Your task to perform on an android device: toggle show notifications on the lock screen Image 0: 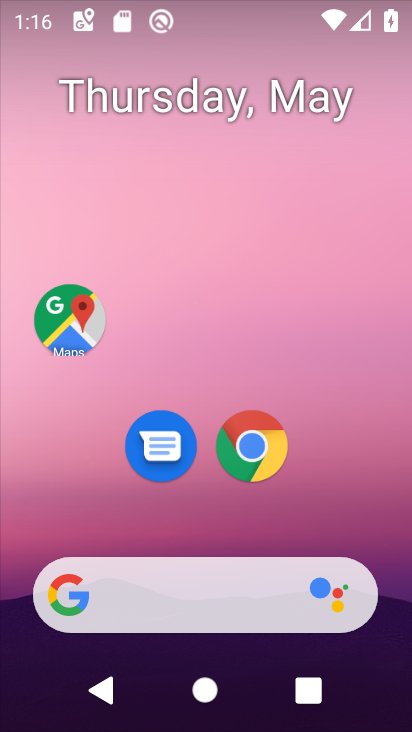
Step 0: drag from (201, 497) to (230, 126)
Your task to perform on an android device: toggle show notifications on the lock screen Image 1: 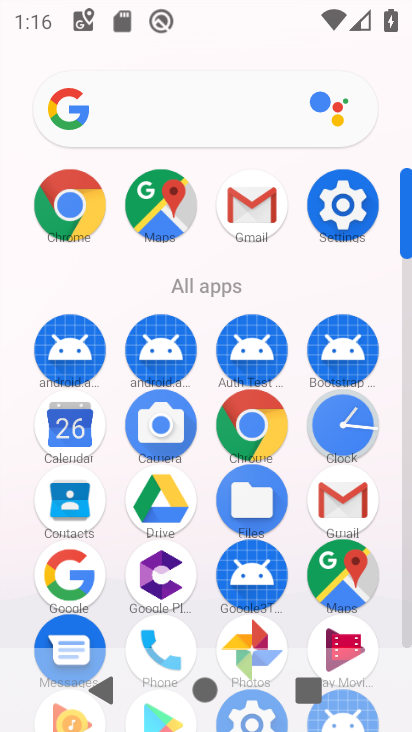
Step 1: click (350, 220)
Your task to perform on an android device: toggle show notifications on the lock screen Image 2: 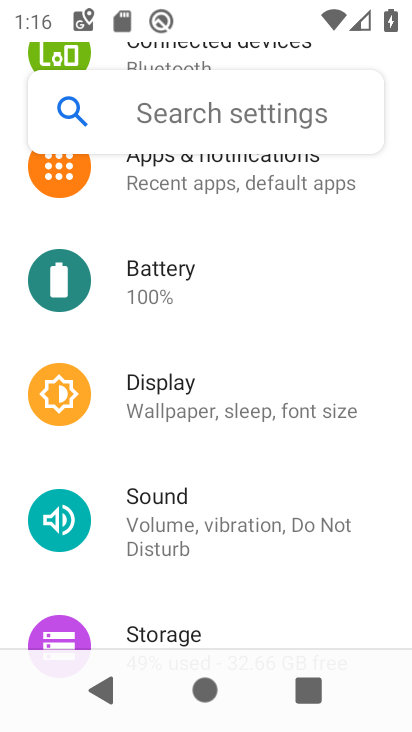
Step 2: click (234, 179)
Your task to perform on an android device: toggle show notifications on the lock screen Image 3: 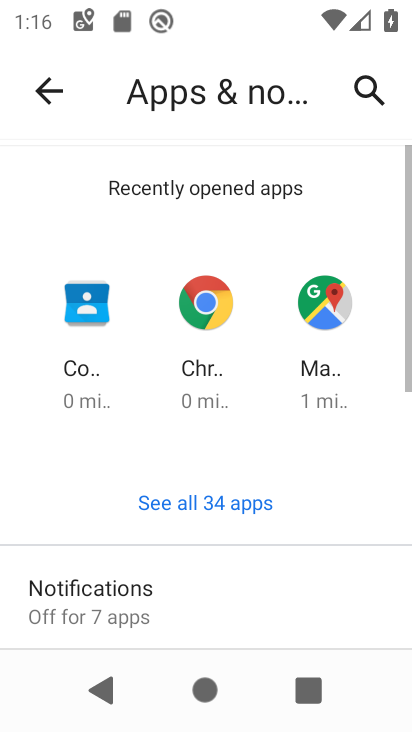
Step 3: drag from (157, 572) to (197, 143)
Your task to perform on an android device: toggle show notifications on the lock screen Image 4: 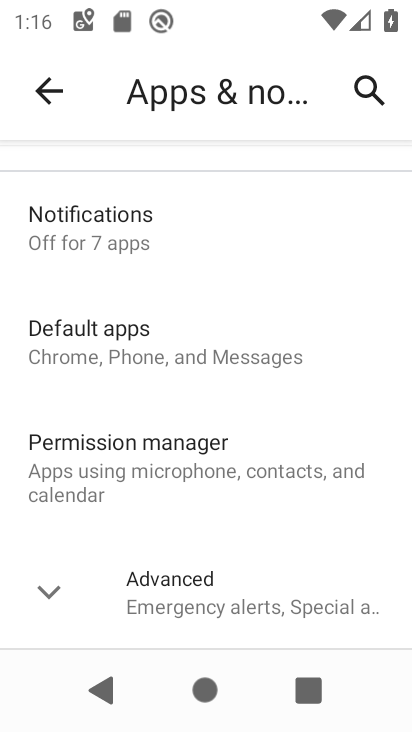
Step 4: click (121, 239)
Your task to perform on an android device: toggle show notifications on the lock screen Image 5: 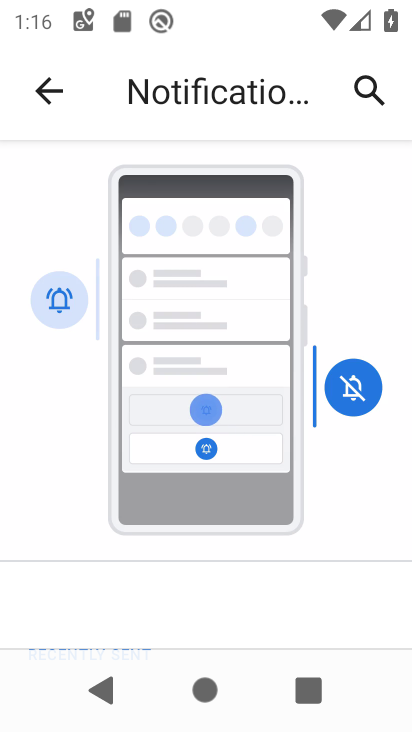
Step 5: drag from (185, 587) to (242, 187)
Your task to perform on an android device: toggle show notifications on the lock screen Image 6: 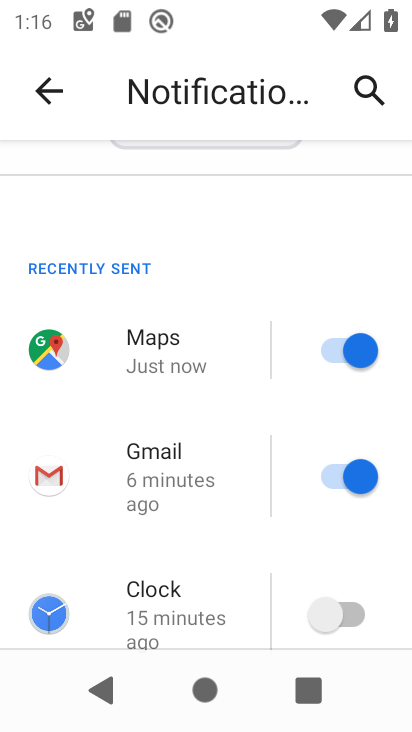
Step 6: drag from (237, 553) to (256, 142)
Your task to perform on an android device: toggle show notifications on the lock screen Image 7: 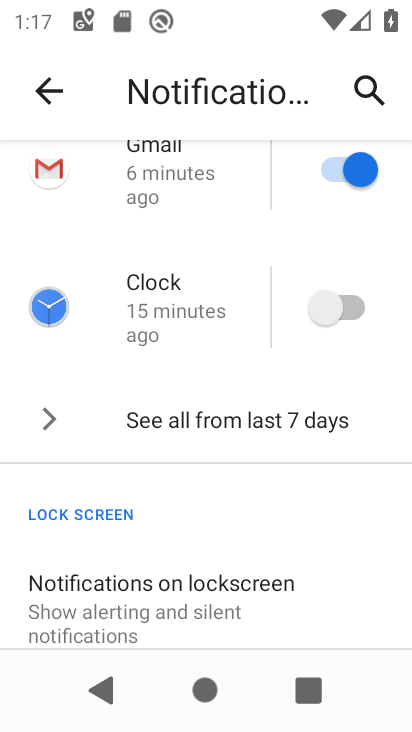
Step 7: click (169, 598)
Your task to perform on an android device: toggle show notifications on the lock screen Image 8: 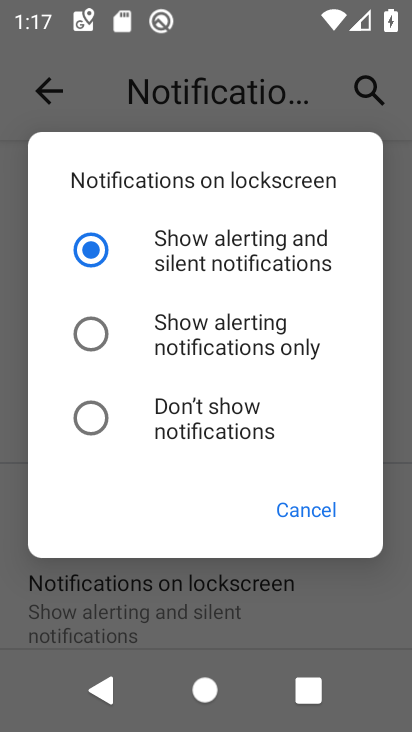
Step 8: click (160, 402)
Your task to perform on an android device: toggle show notifications on the lock screen Image 9: 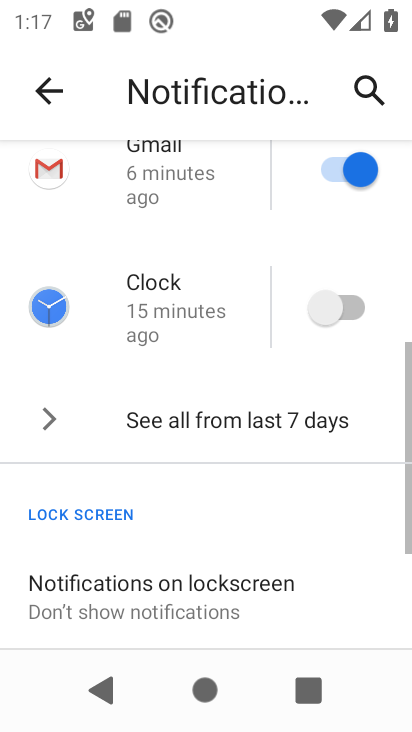
Step 9: task complete